Your task to perform on an android device: change the clock display to digital Image 0: 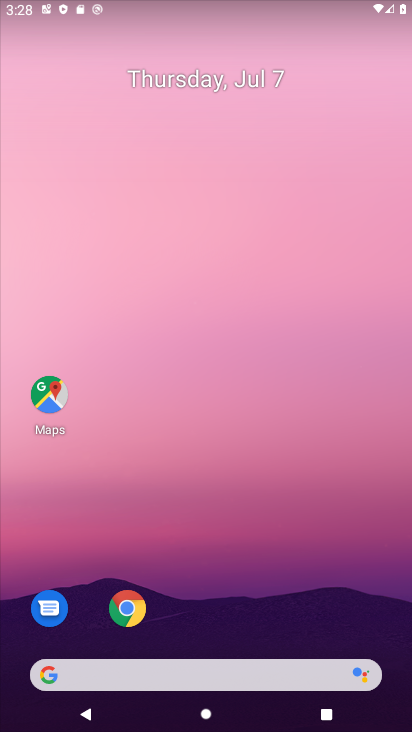
Step 0: drag from (383, 632) to (334, 90)
Your task to perform on an android device: change the clock display to digital Image 1: 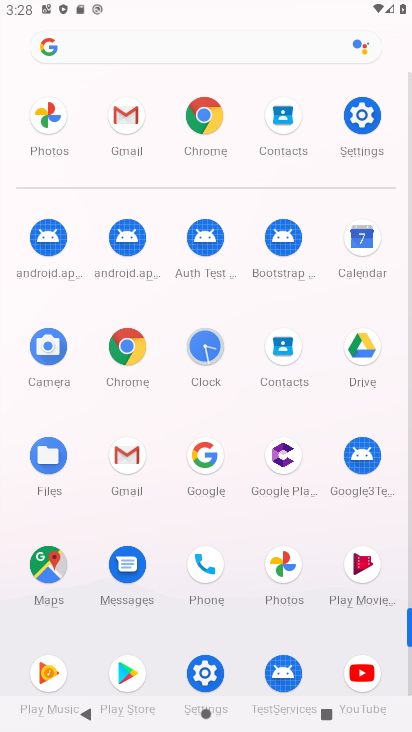
Step 1: click (203, 346)
Your task to perform on an android device: change the clock display to digital Image 2: 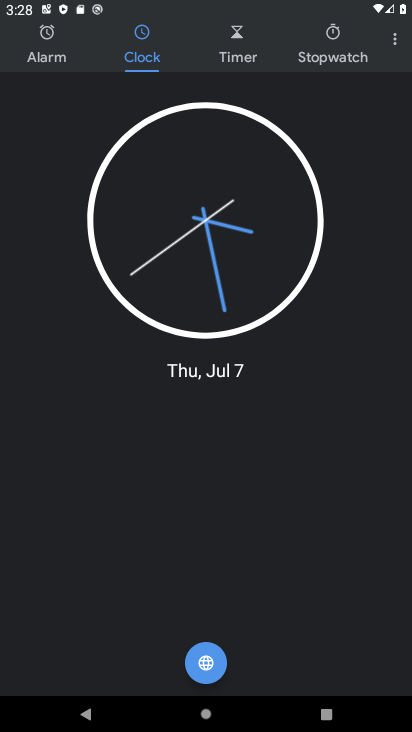
Step 2: click (394, 42)
Your task to perform on an android device: change the clock display to digital Image 3: 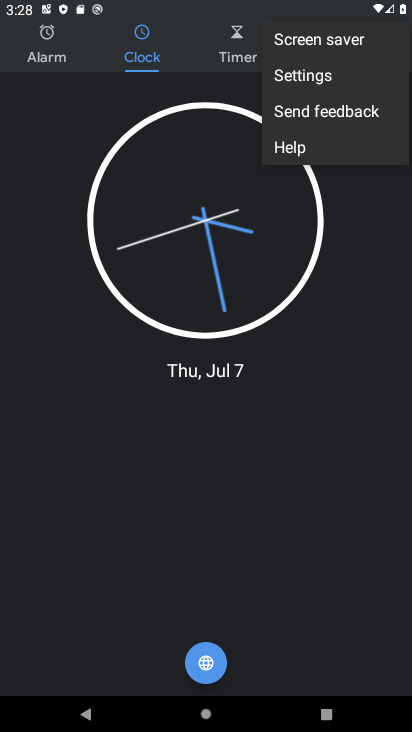
Step 3: click (296, 74)
Your task to perform on an android device: change the clock display to digital Image 4: 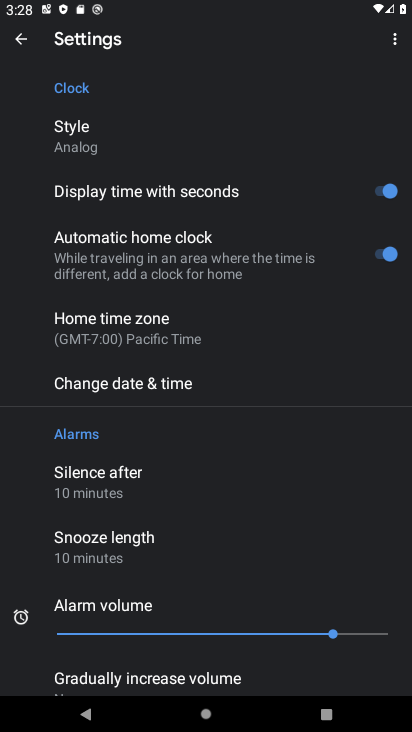
Step 4: click (82, 142)
Your task to perform on an android device: change the clock display to digital Image 5: 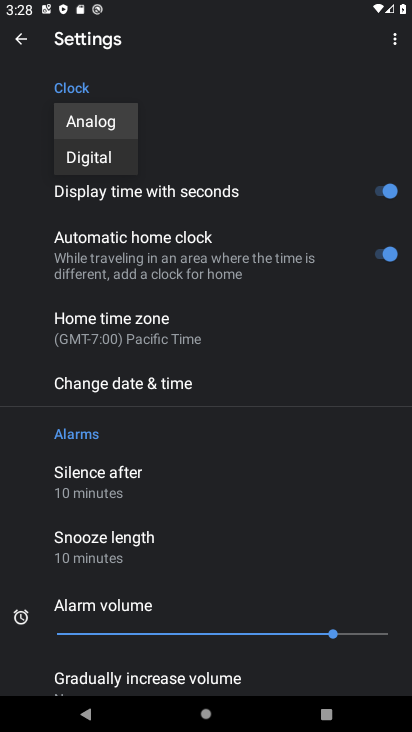
Step 5: click (84, 154)
Your task to perform on an android device: change the clock display to digital Image 6: 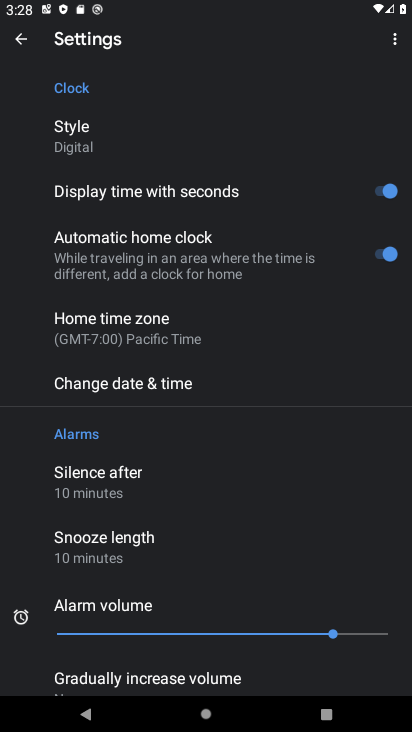
Step 6: task complete